Your task to perform on an android device: Do I have any events this weekend? Image 0: 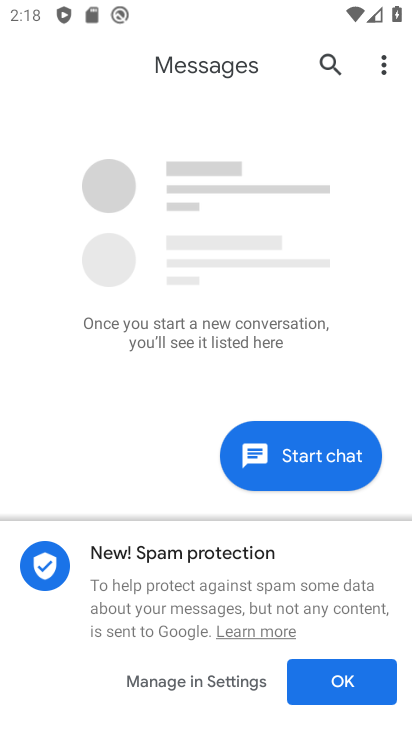
Step 0: press home button
Your task to perform on an android device: Do I have any events this weekend? Image 1: 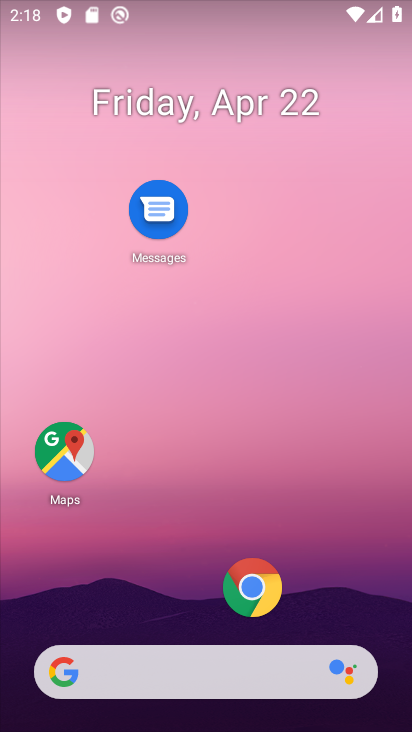
Step 1: drag from (197, 609) to (265, 83)
Your task to perform on an android device: Do I have any events this weekend? Image 2: 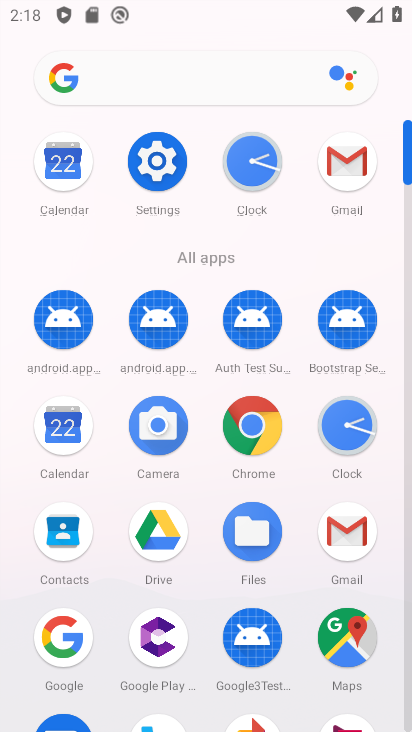
Step 2: click (65, 440)
Your task to perform on an android device: Do I have any events this weekend? Image 3: 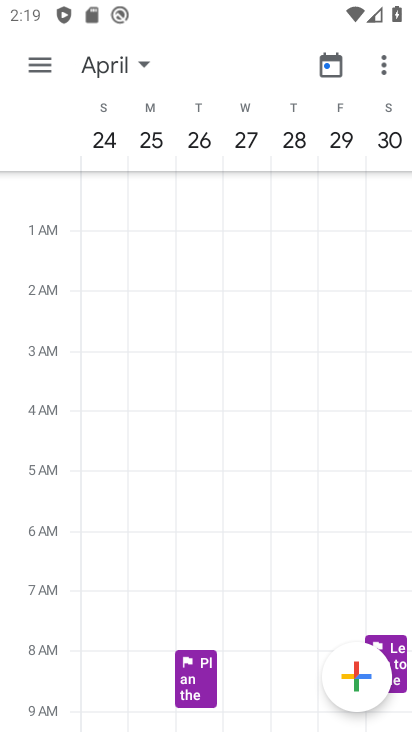
Step 3: task complete